Your task to perform on an android device: Go to Maps Image 0: 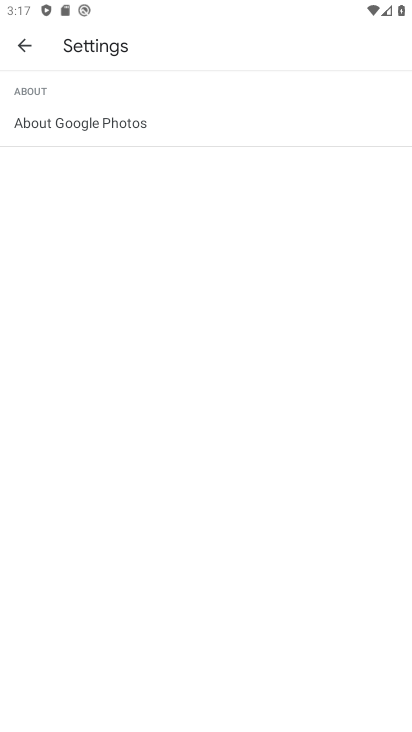
Step 0: press back button
Your task to perform on an android device: Go to Maps Image 1: 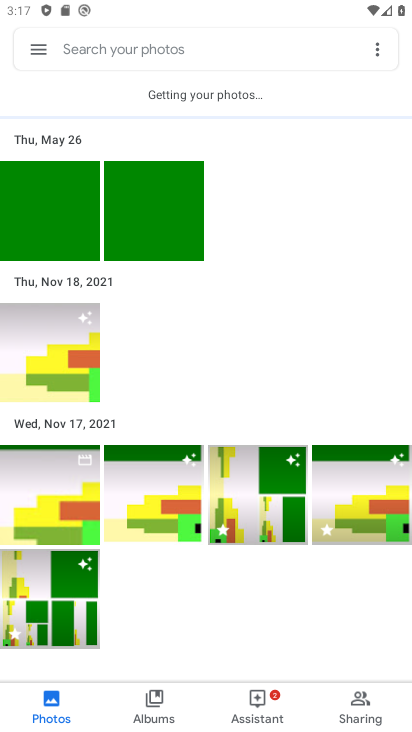
Step 1: press home button
Your task to perform on an android device: Go to Maps Image 2: 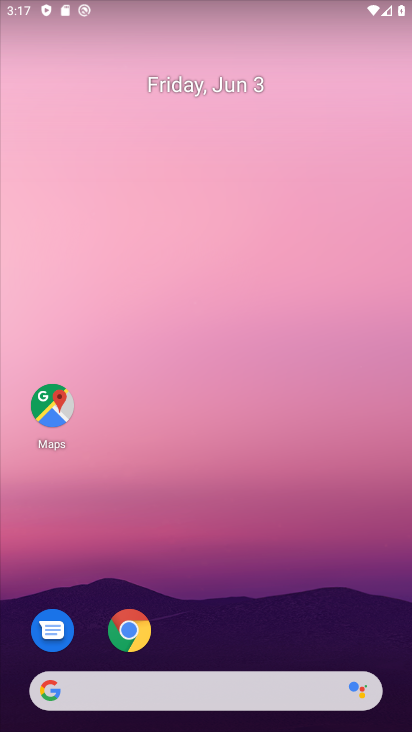
Step 2: drag from (253, 662) to (202, 205)
Your task to perform on an android device: Go to Maps Image 3: 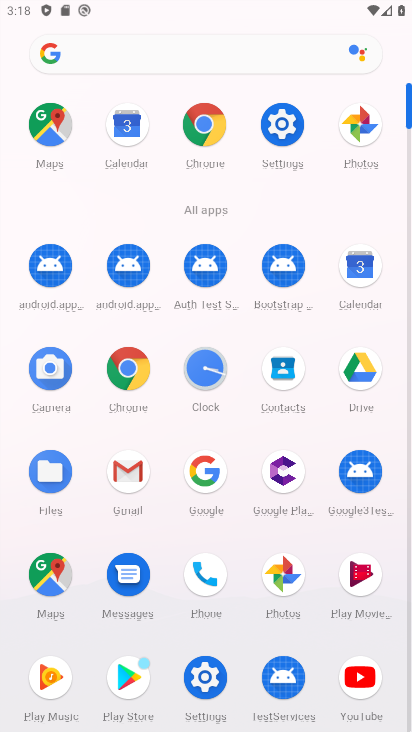
Step 3: click (49, 570)
Your task to perform on an android device: Go to Maps Image 4: 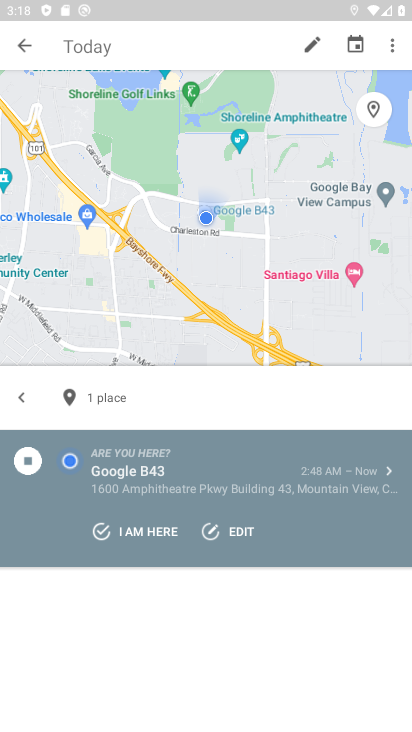
Step 4: task complete